Your task to perform on an android device: open app "Messenger Lite" (install if not already installed) Image 0: 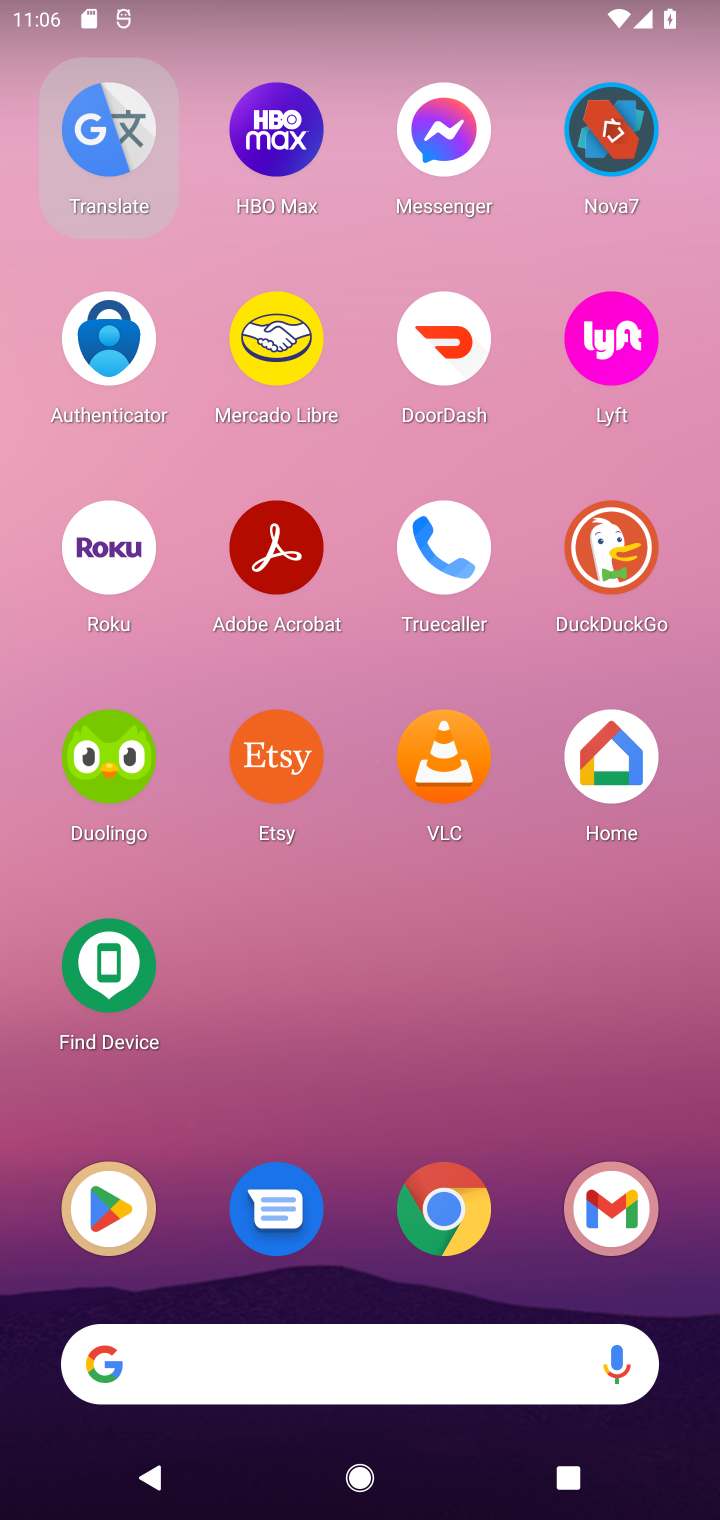
Step 0: drag from (550, 643) to (411, 23)
Your task to perform on an android device: open app "Messenger Lite" (install if not already installed) Image 1: 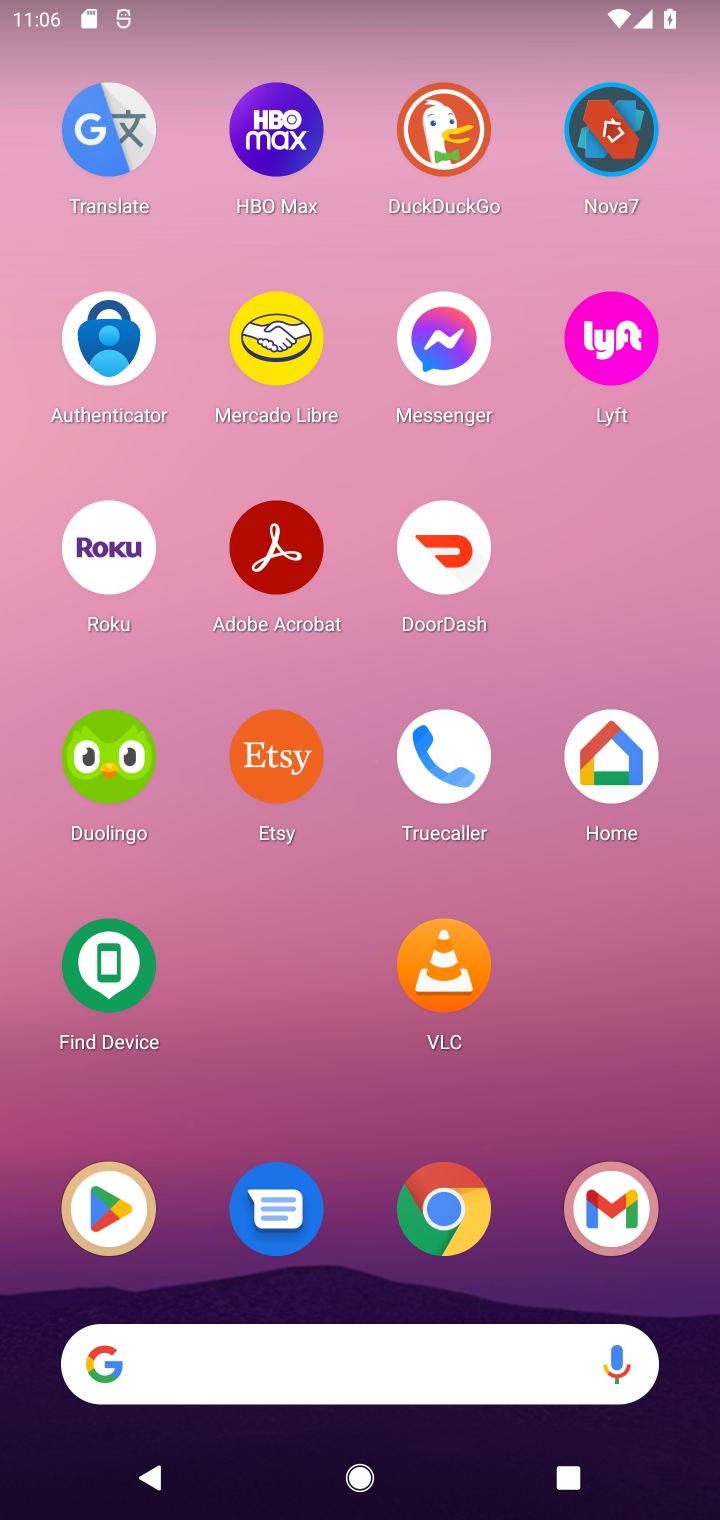
Step 1: drag from (580, 1037) to (574, 39)
Your task to perform on an android device: open app "Messenger Lite" (install if not already installed) Image 2: 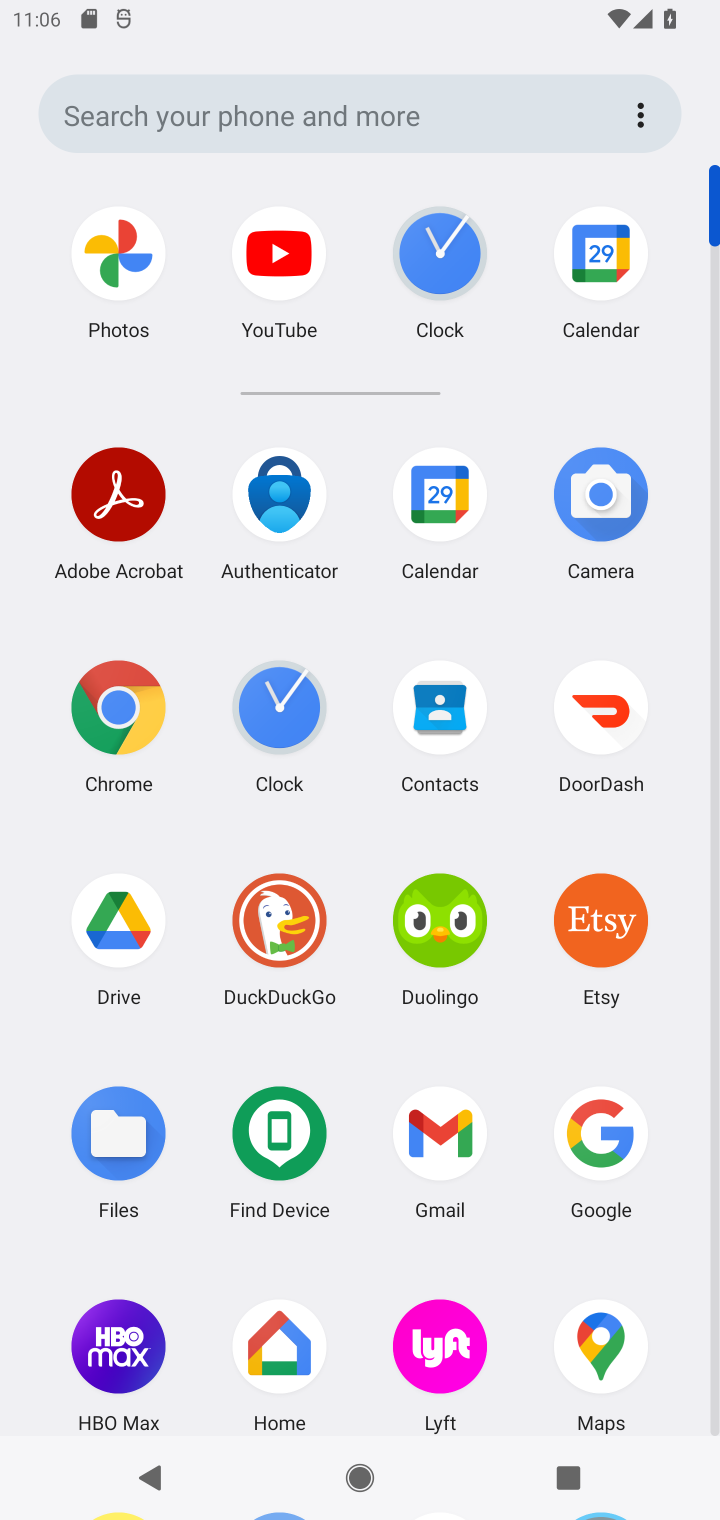
Step 2: drag from (511, 1238) to (488, 393)
Your task to perform on an android device: open app "Messenger Lite" (install if not already installed) Image 3: 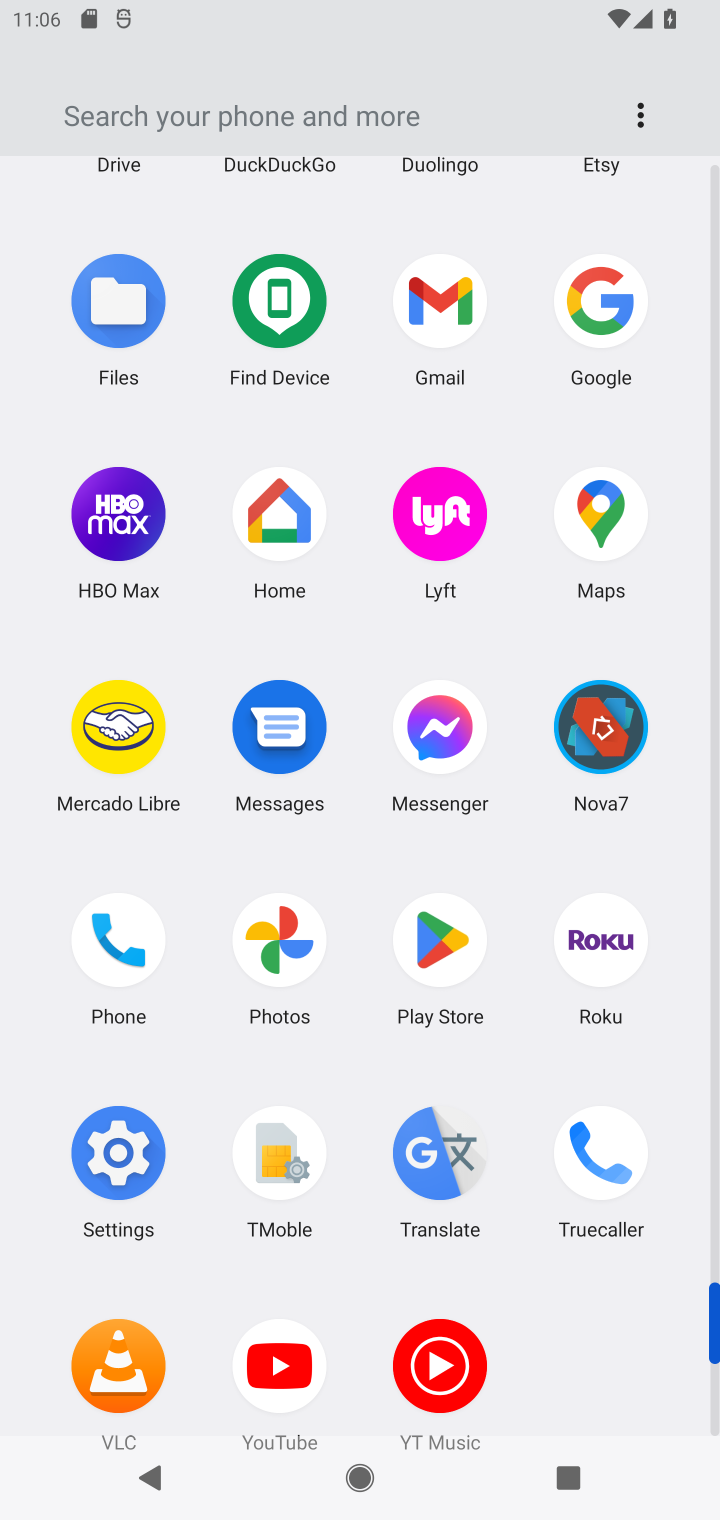
Step 3: click (445, 960)
Your task to perform on an android device: open app "Messenger Lite" (install if not already installed) Image 4: 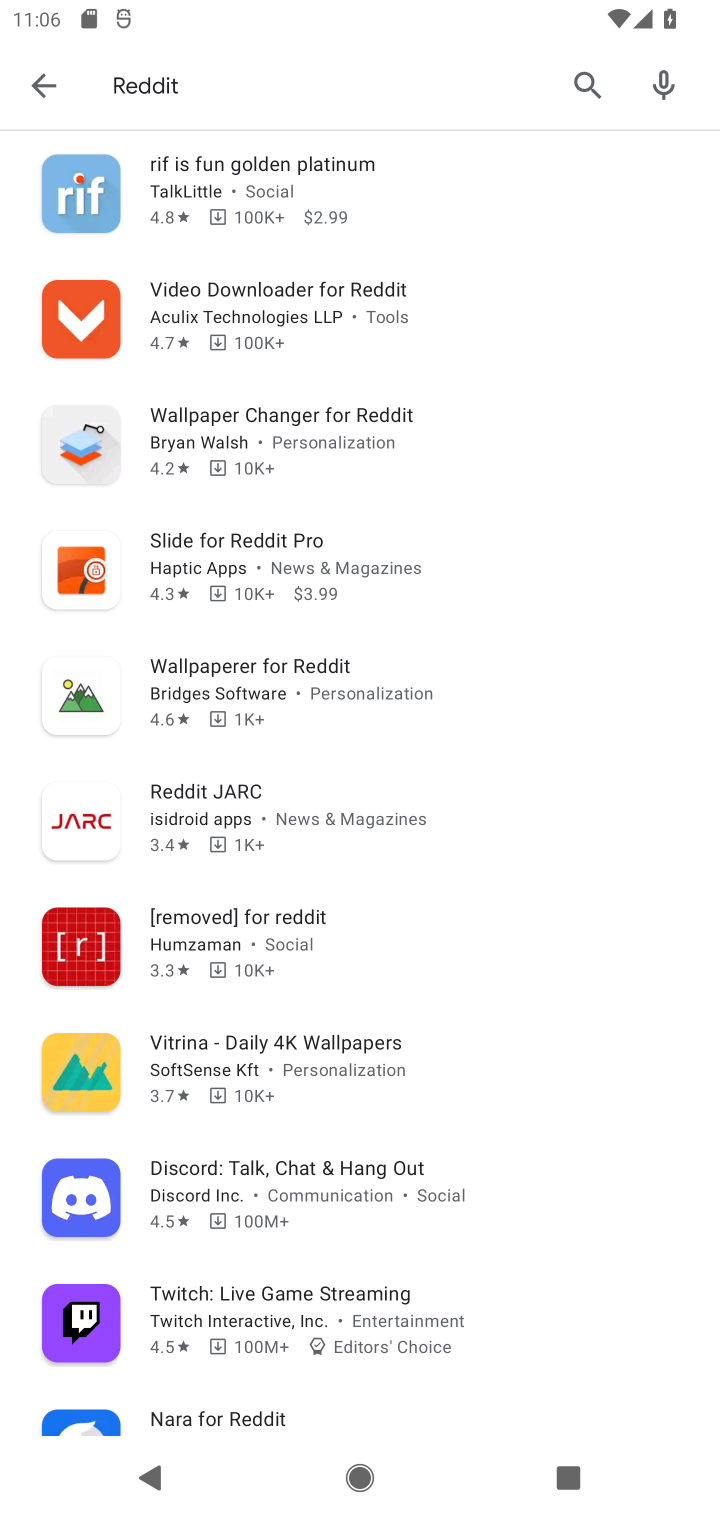
Step 4: click (261, 85)
Your task to perform on an android device: open app "Messenger Lite" (install if not already installed) Image 5: 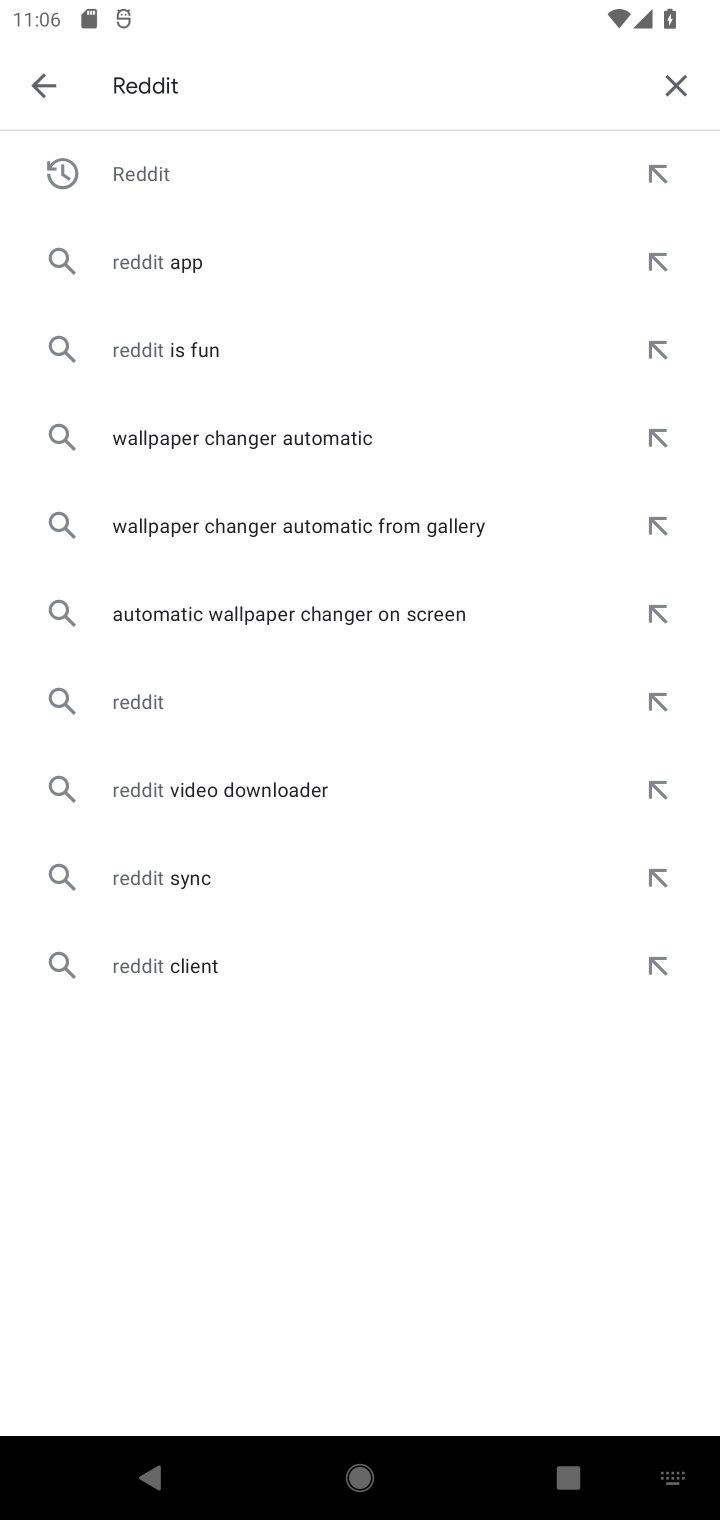
Step 5: click (684, 85)
Your task to perform on an android device: open app "Messenger Lite" (install if not already installed) Image 6: 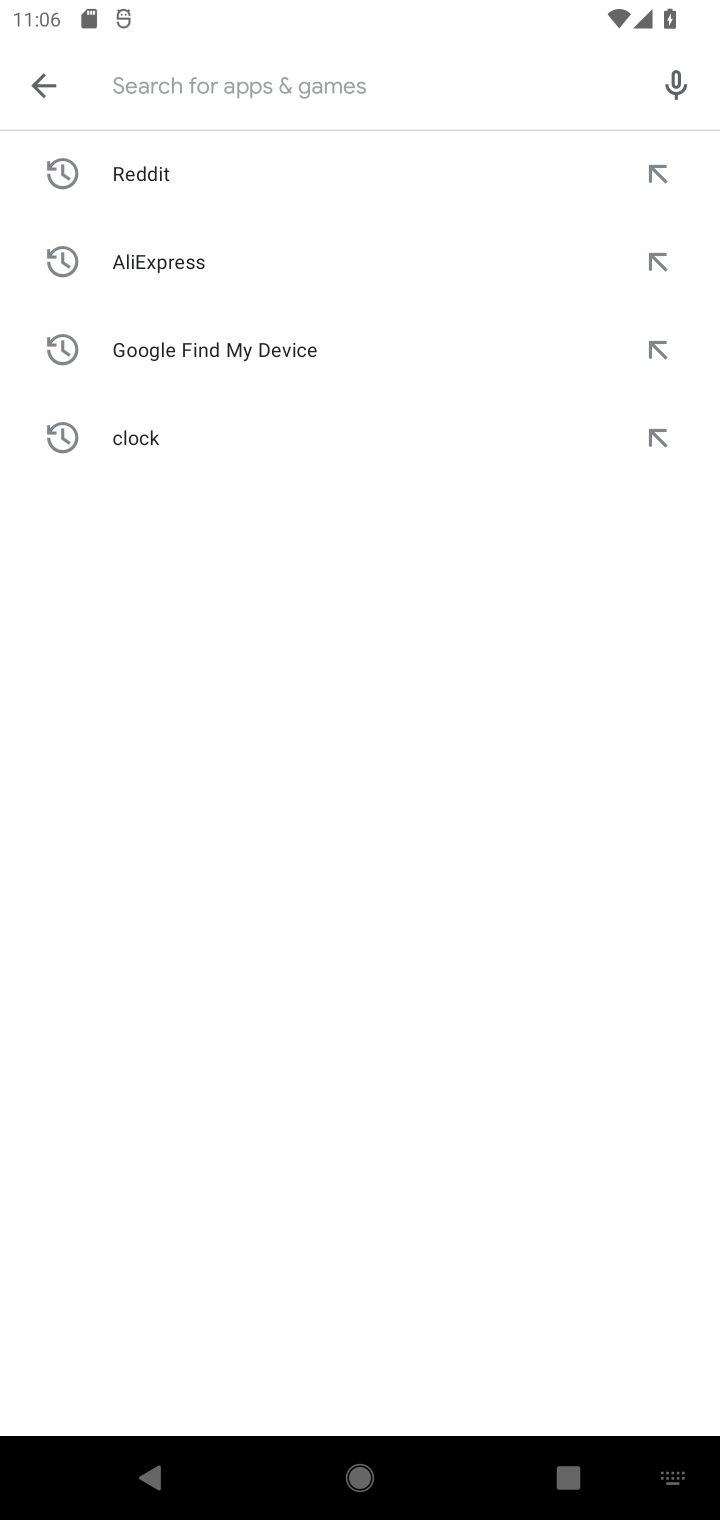
Step 6: type "Messenger Lite"
Your task to perform on an android device: open app "Messenger Lite" (install if not already installed) Image 7: 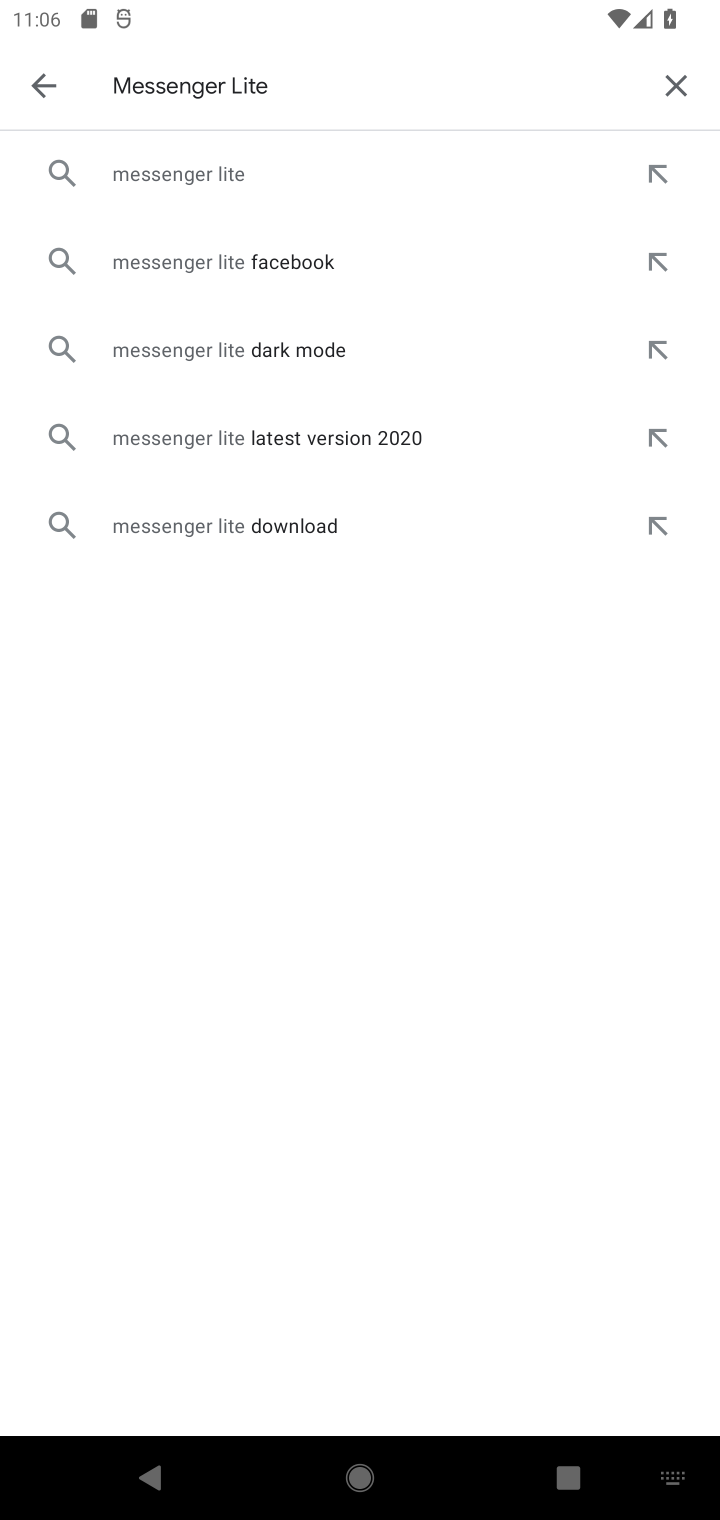
Step 7: press enter
Your task to perform on an android device: open app "Messenger Lite" (install if not already installed) Image 8: 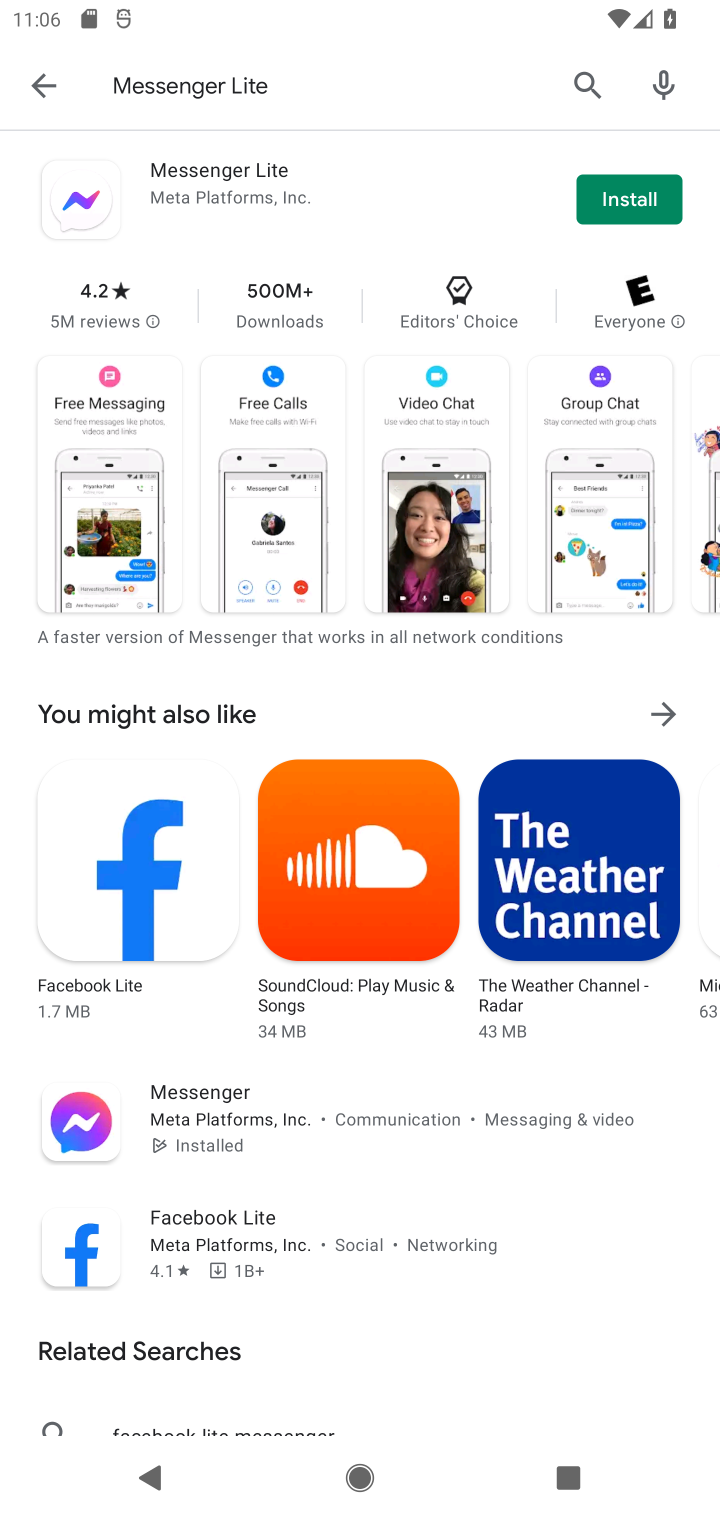
Step 8: click (646, 205)
Your task to perform on an android device: open app "Messenger Lite" (install if not already installed) Image 9: 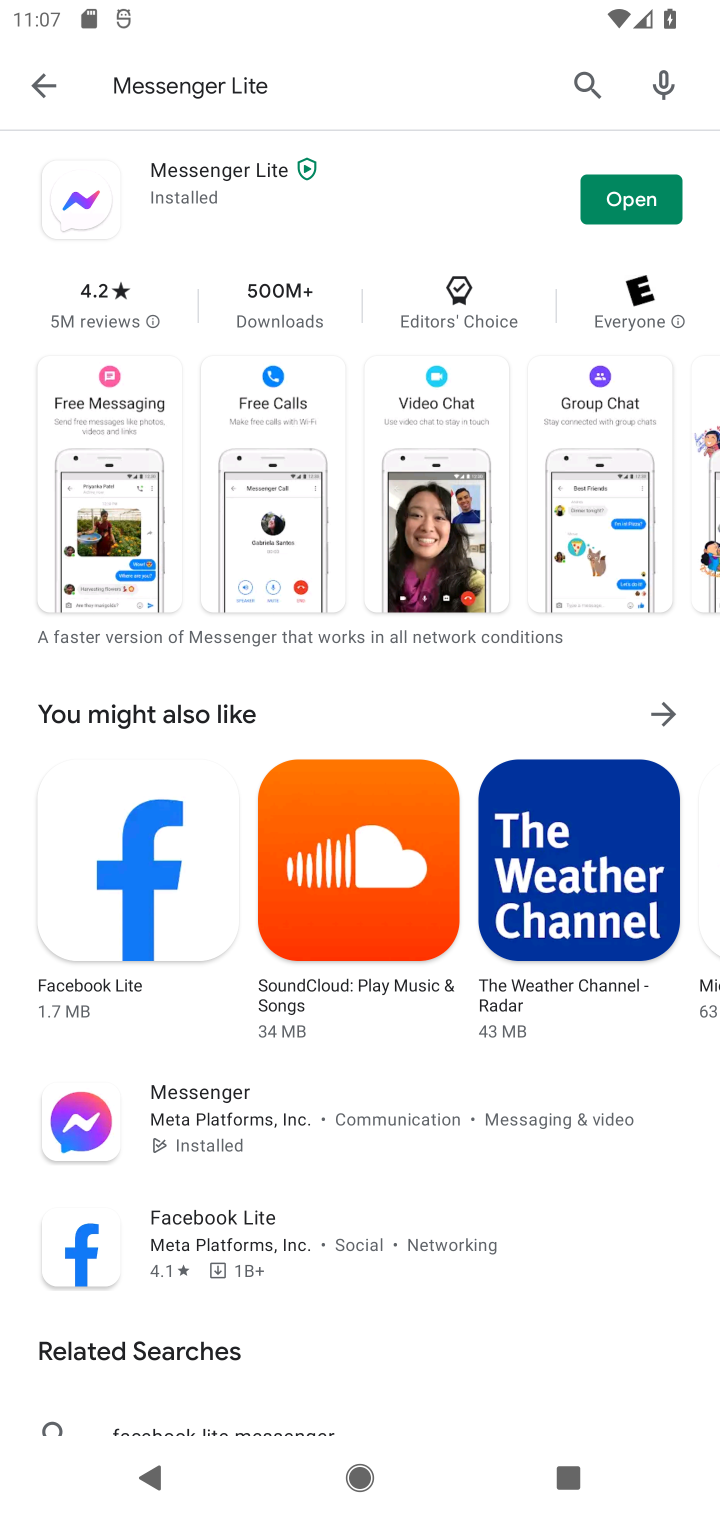
Step 9: click (646, 205)
Your task to perform on an android device: open app "Messenger Lite" (install if not already installed) Image 10: 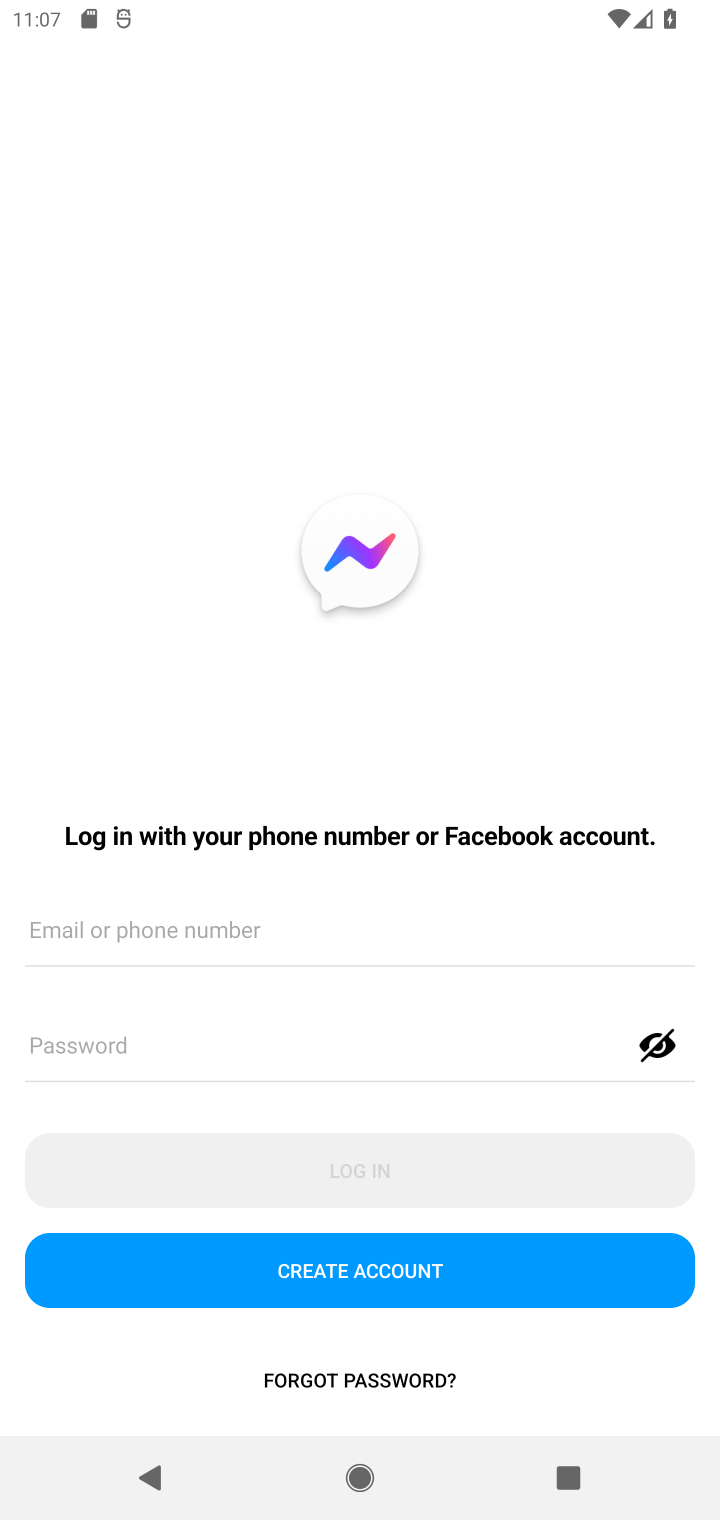
Step 10: task complete